Your task to perform on an android device: Search for vegetarian restaurants on Maps Image 0: 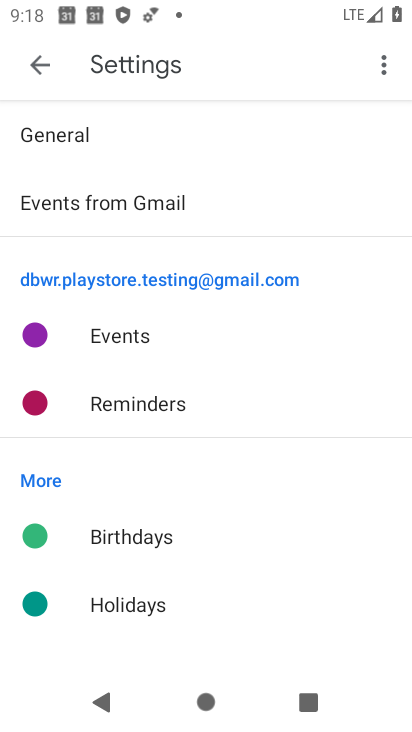
Step 0: press home button
Your task to perform on an android device: Search for vegetarian restaurants on Maps Image 1: 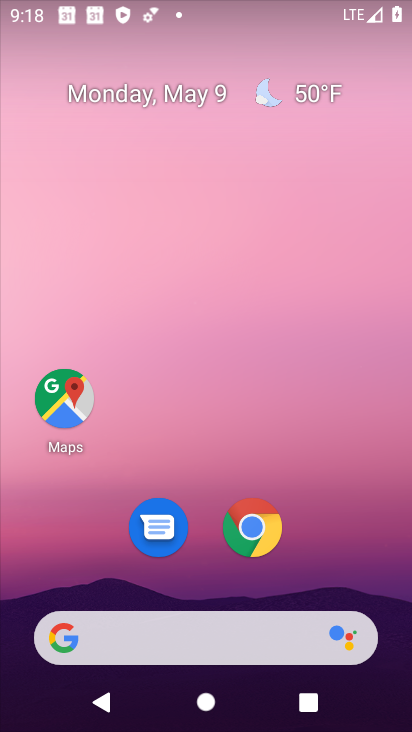
Step 1: click (54, 387)
Your task to perform on an android device: Search for vegetarian restaurants on Maps Image 2: 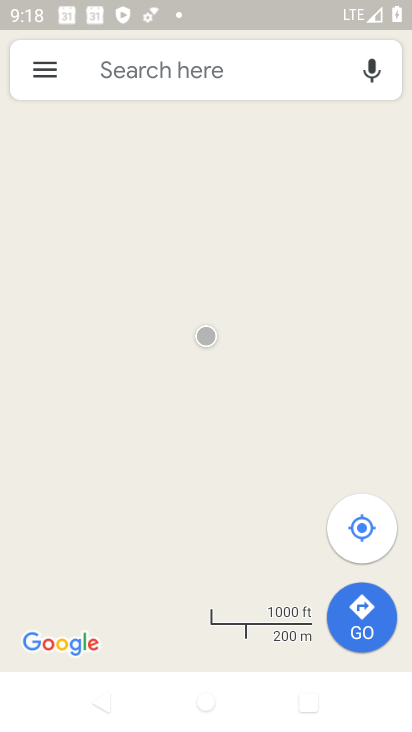
Step 2: click (208, 78)
Your task to perform on an android device: Search for vegetarian restaurants on Maps Image 3: 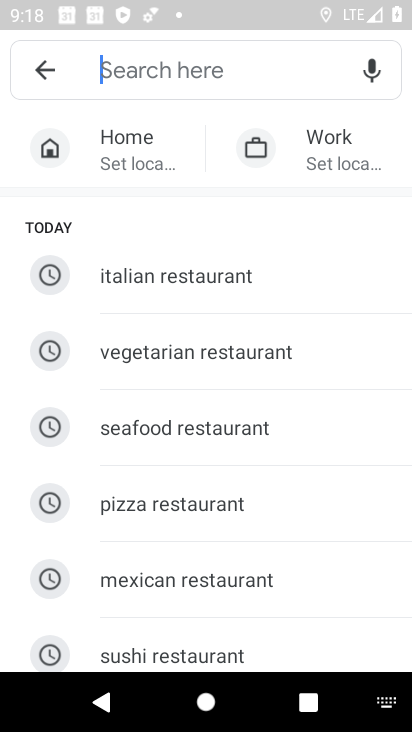
Step 3: type "vegetarian restaurants"
Your task to perform on an android device: Search for vegetarian restaurants on Maps Image 4: 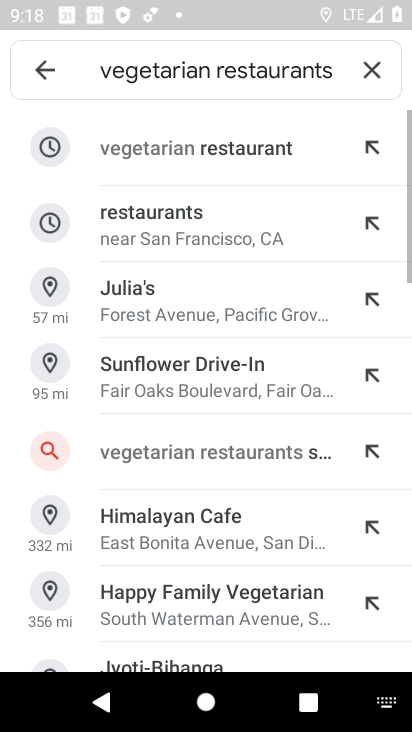
Step 4: click (275, 165)
Your task to perform on an android device: Search for vegetarian restaurants on Maps Image 5: 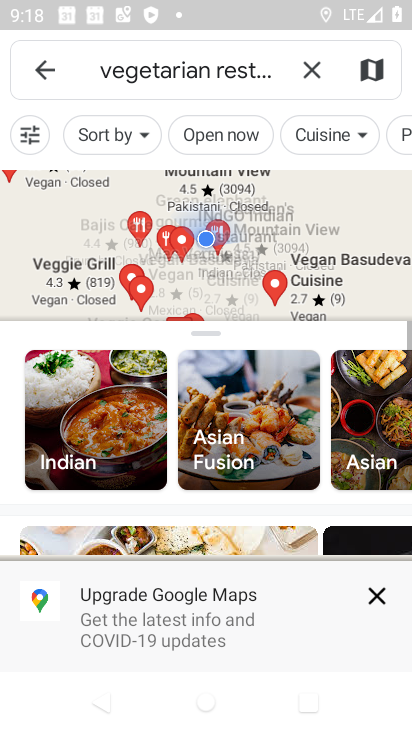
Step 5: task complete